Your task to perform on an android device: check google app version Image 0: 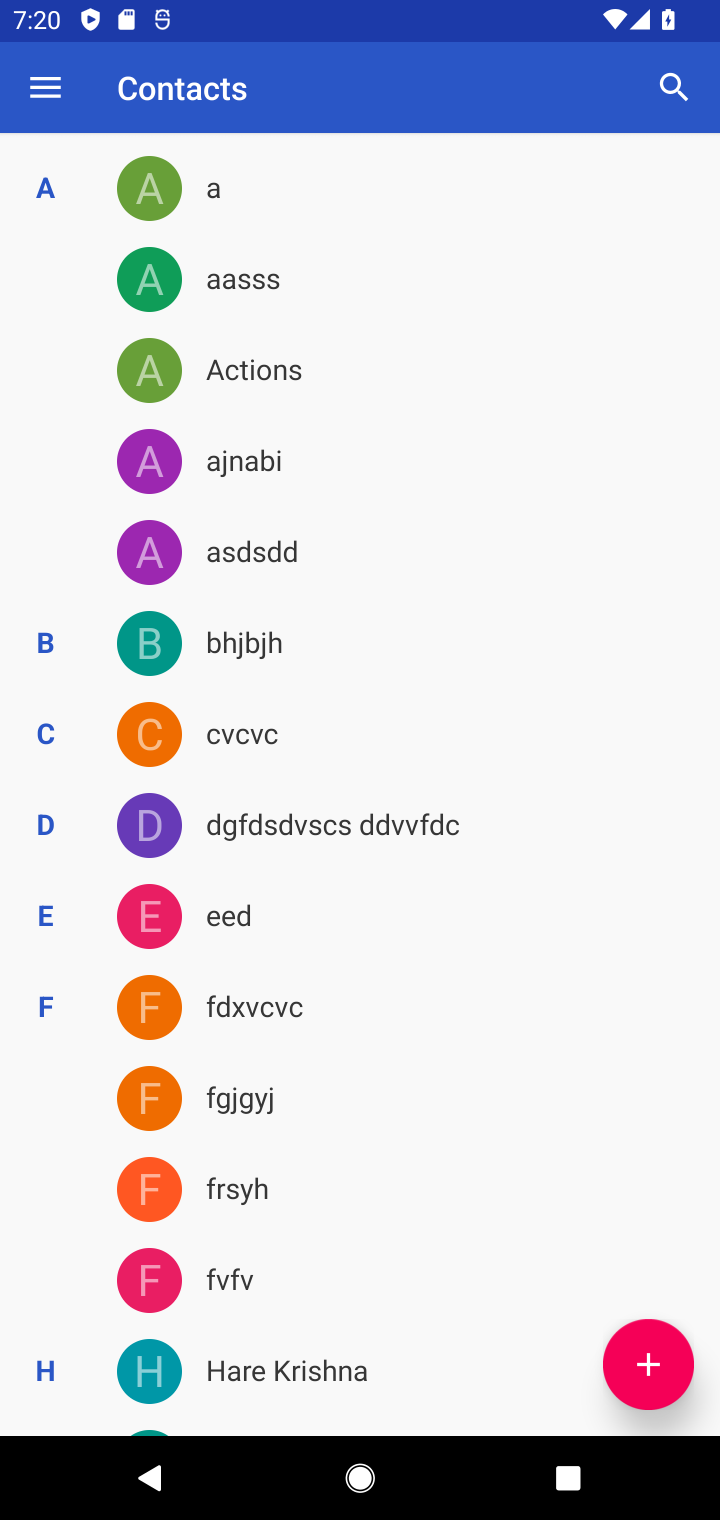
Step 0: press home button
Your task to perform on an android device: check google app version Image 1: 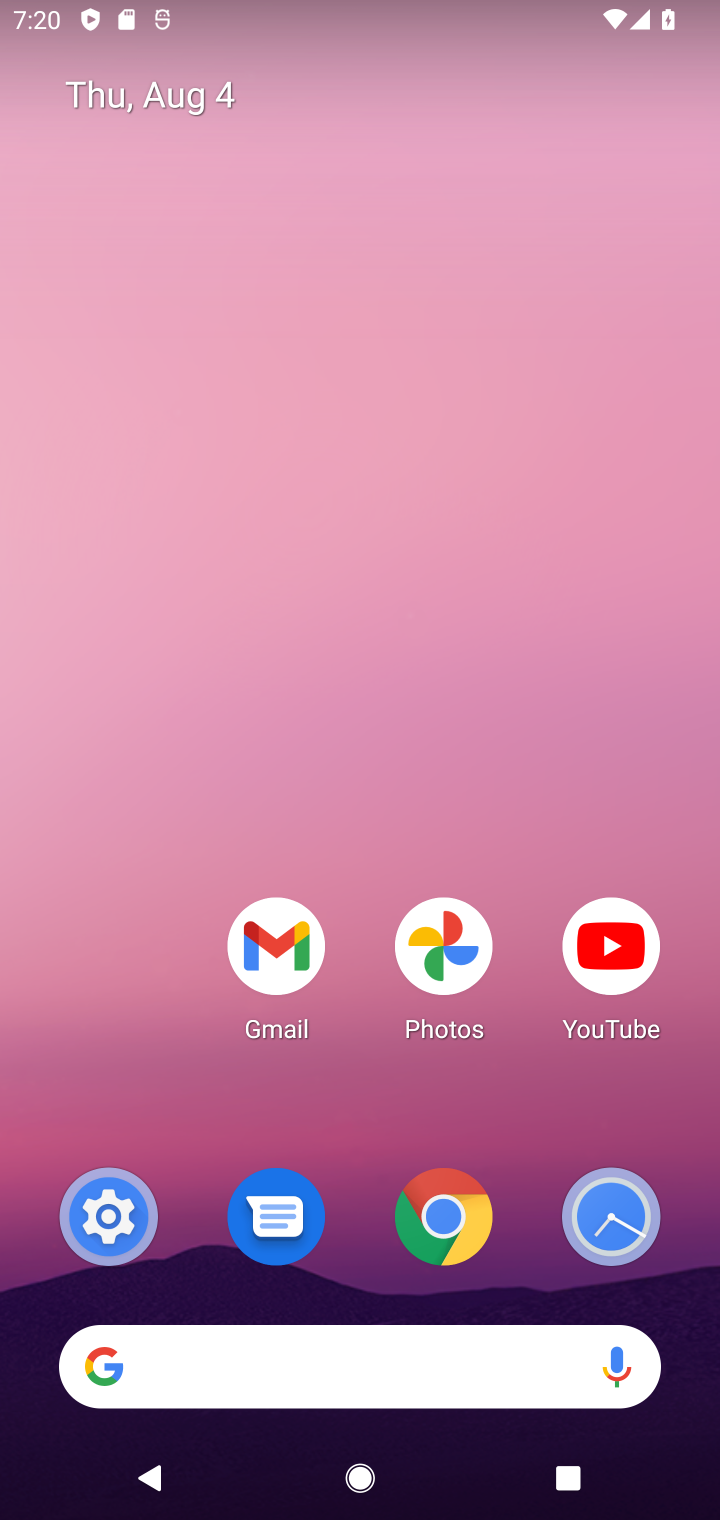
Step 1: drag from (374, 1154) to (400, 1)
Your task to perform on an android device: check google app version Image 2: 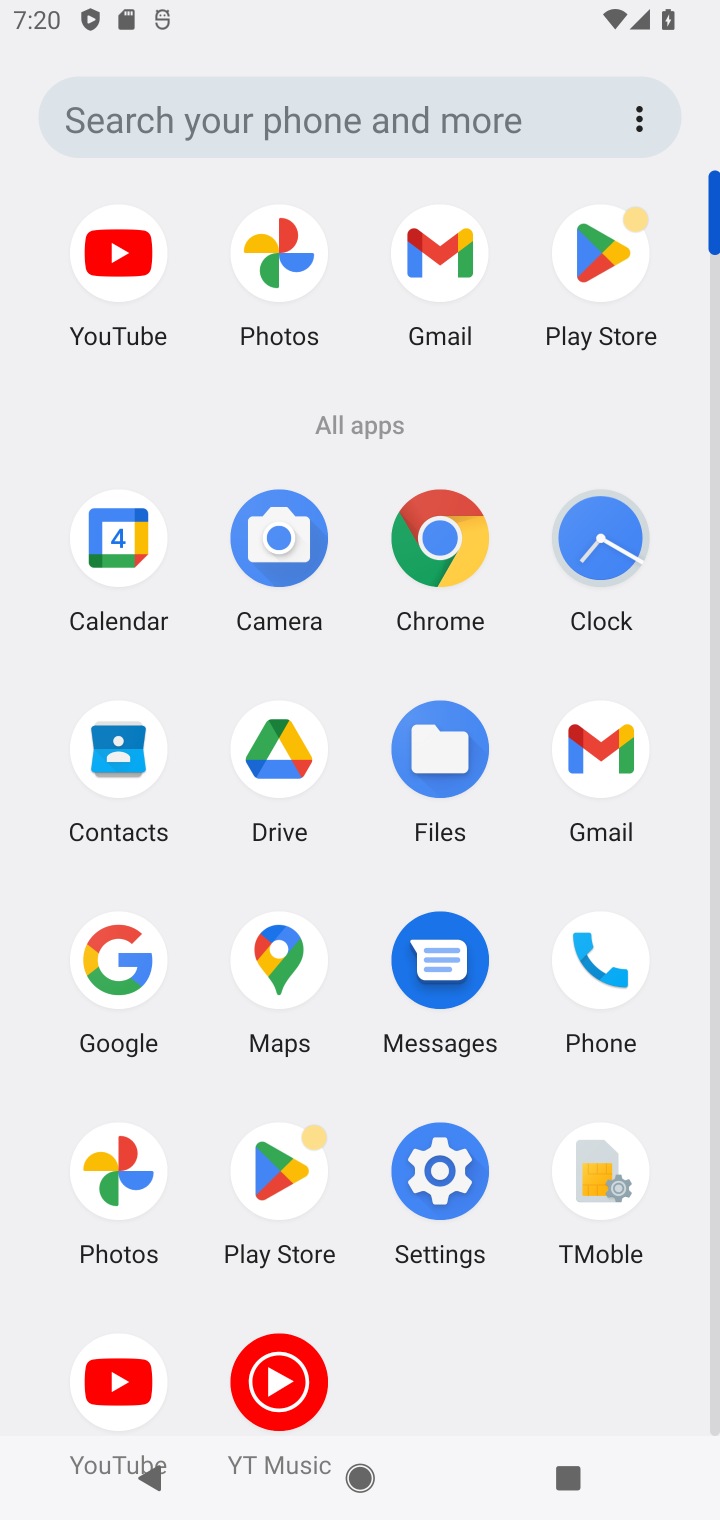
Step 2: click (122, 948)
Your task to perform on an android device: check google app version Image 3: 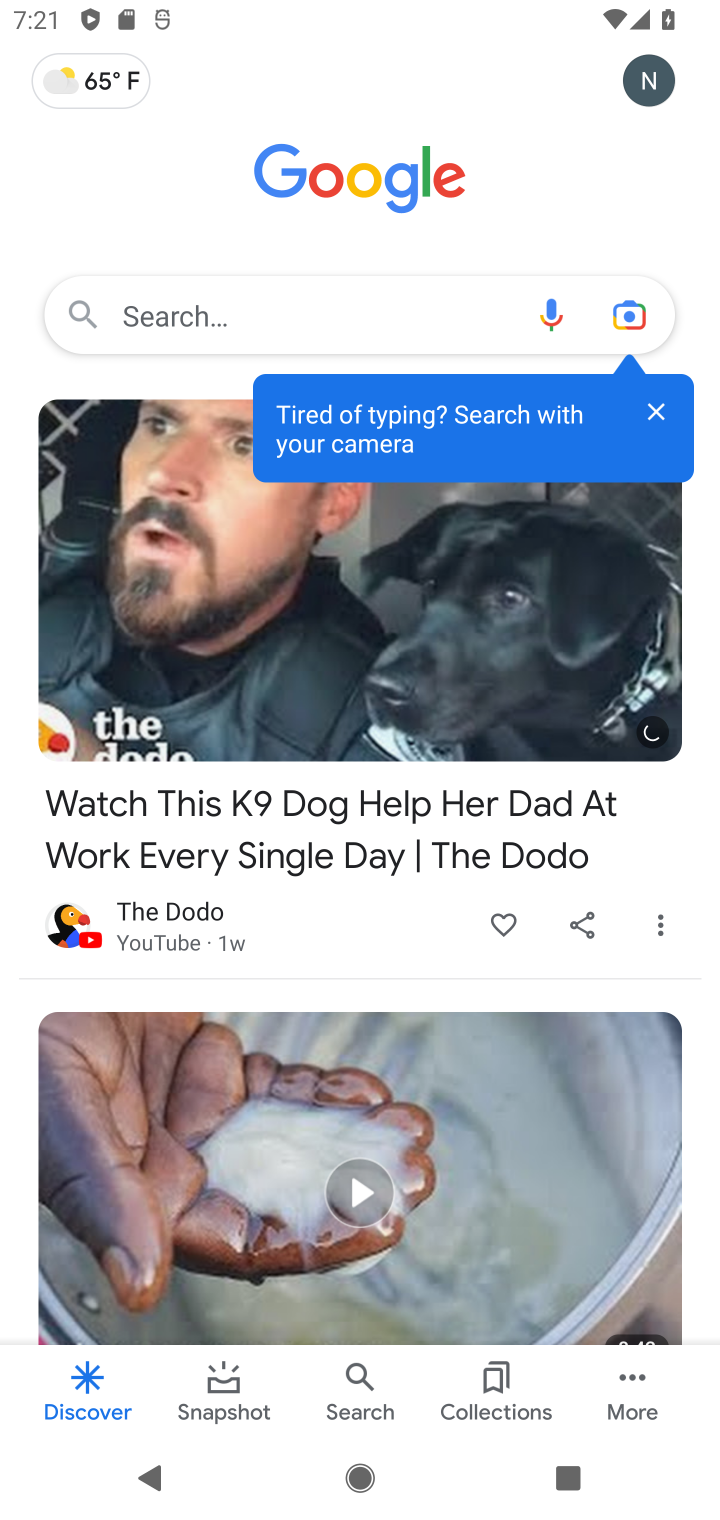
Step 3: click (636, 1378)
Your task to perform on an android device: check google app version Image 4: 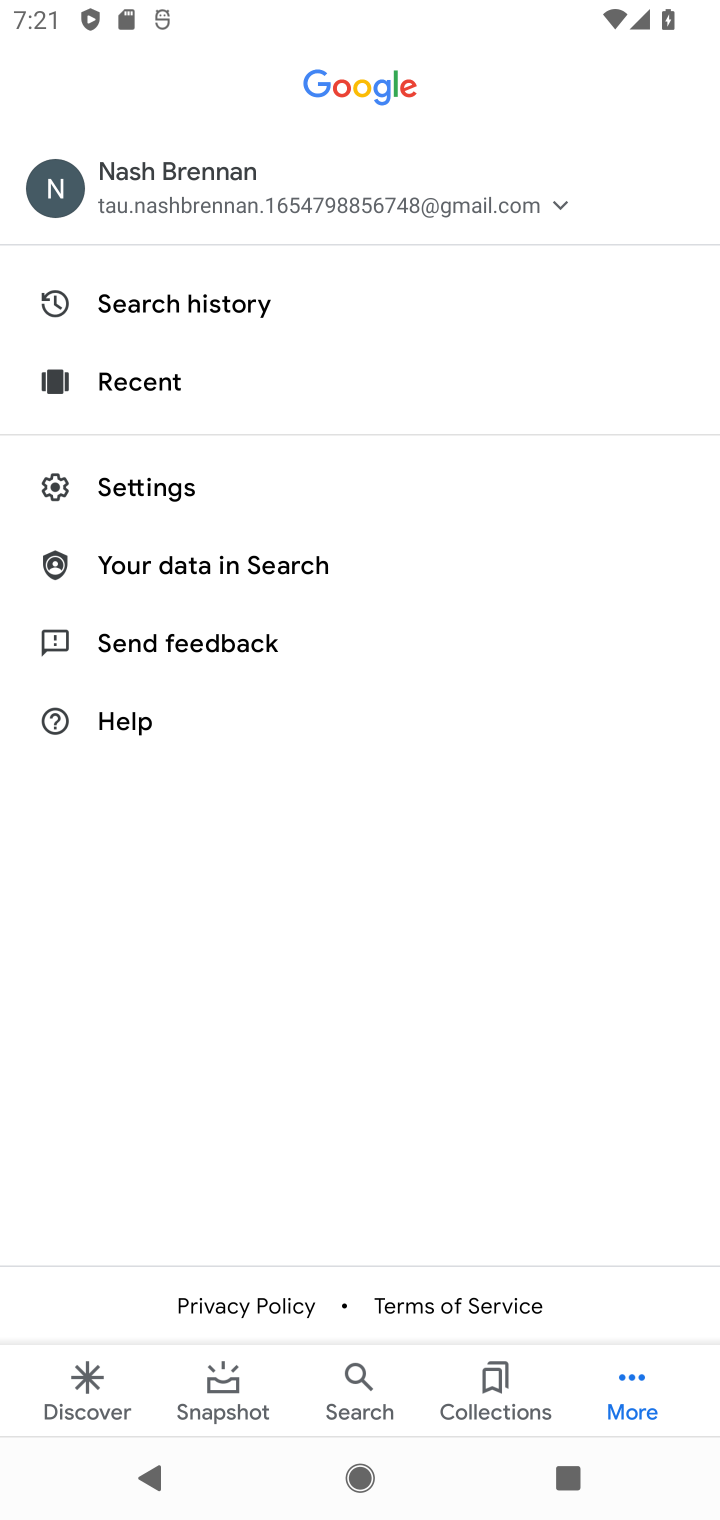
Step 4: click (134, 488)
Your task to perform on an android device: check google app version Image 5: 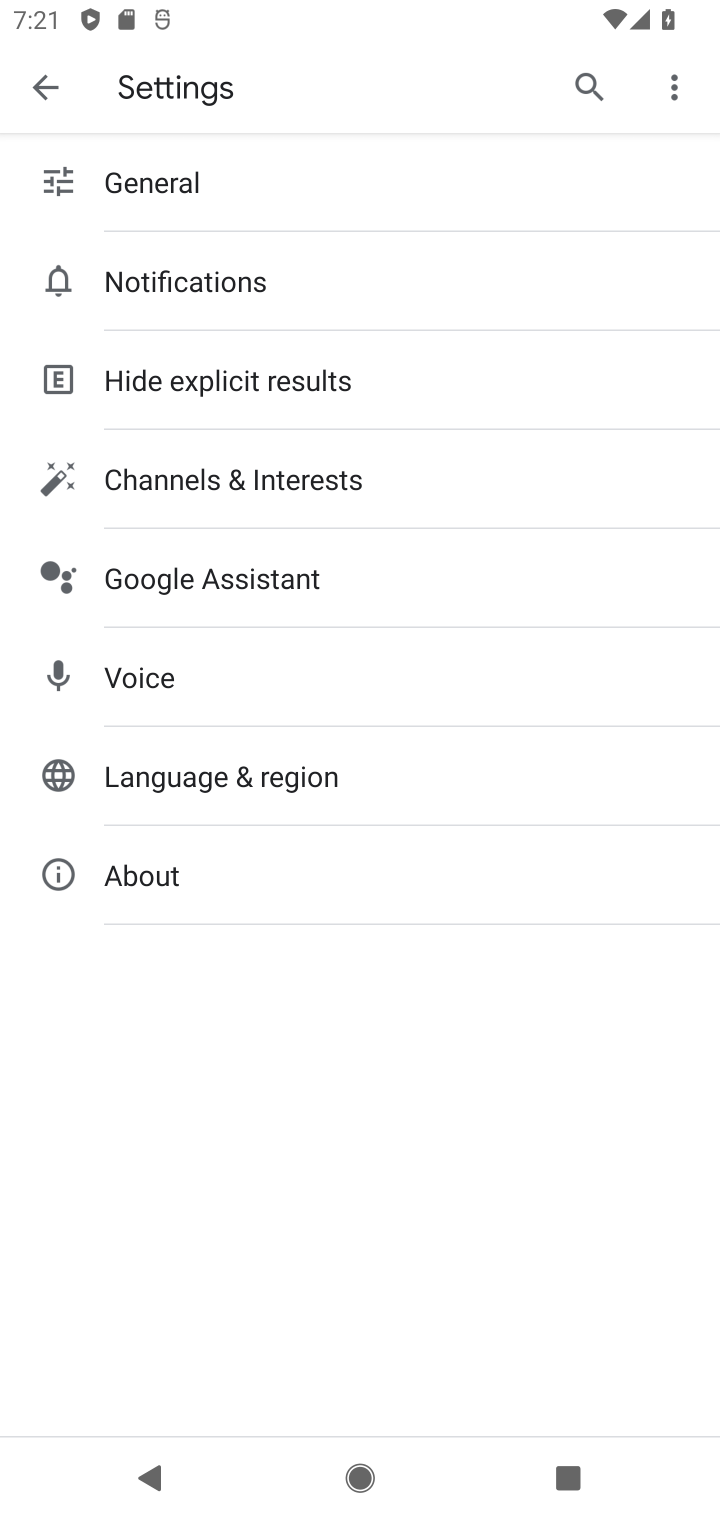
Step 5: click (155, 871)
Your task to perform on an android device: check google app version Image 6: 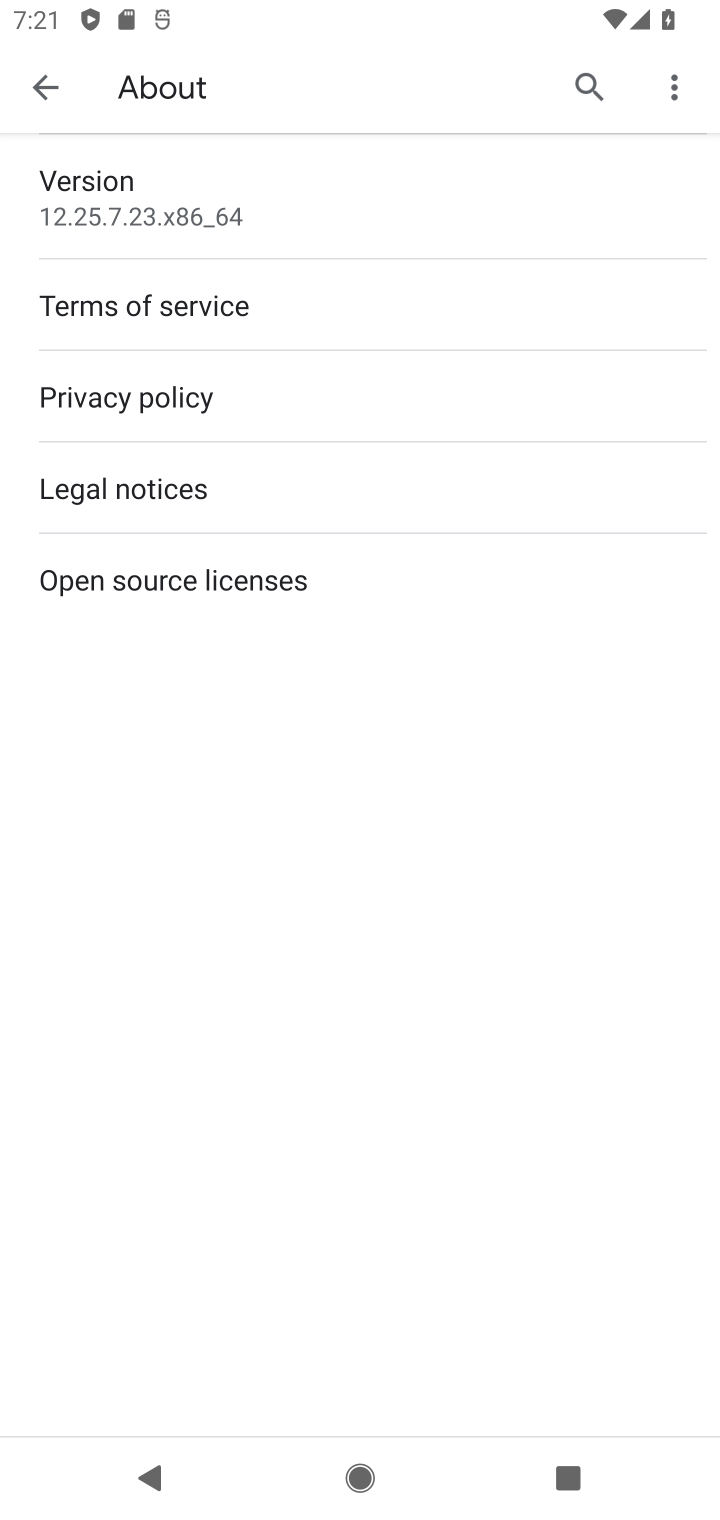
Step 6: click (467, 162)
Your task to perform on an android device: check google app version Image 7: 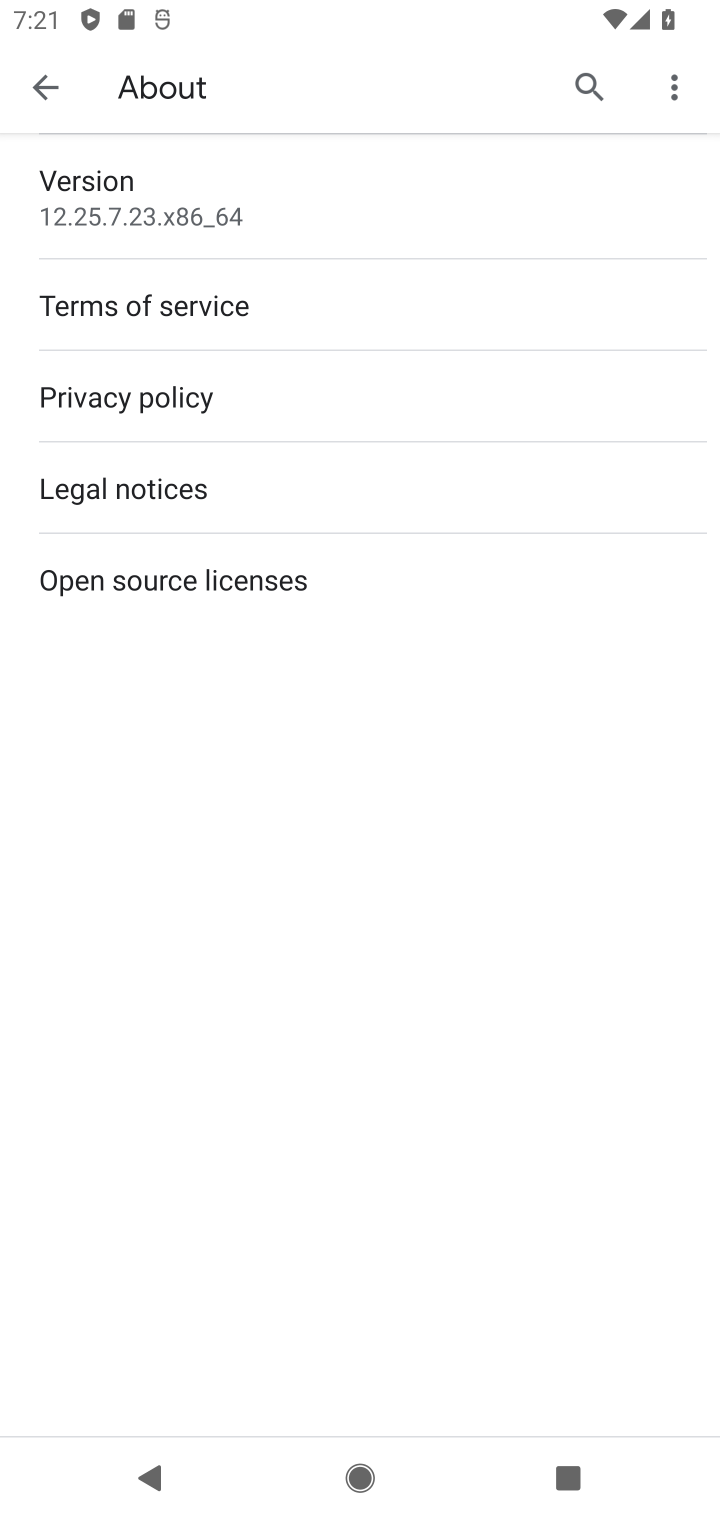
Step 7: task complete